Your task to perform on an android device: Open Google Maps and go to "Timeline" Image 0: 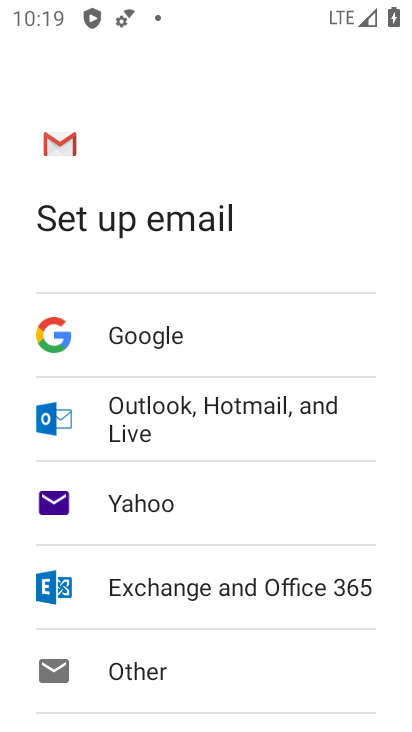
Step 0: press home button
Your task to perform on an android device: Open Google Maps and go to "Timeline" Image 1: 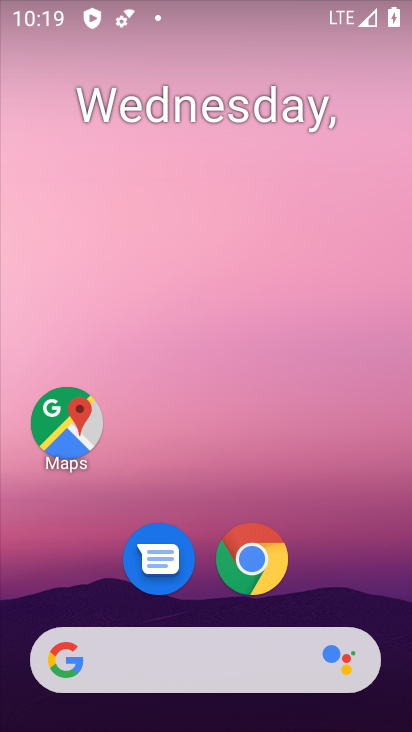
Step 1: drag from (376, 523) to (408, 4)
Your task to perform on an android device: Open Google Maps and go to "Timeline" Image 2: 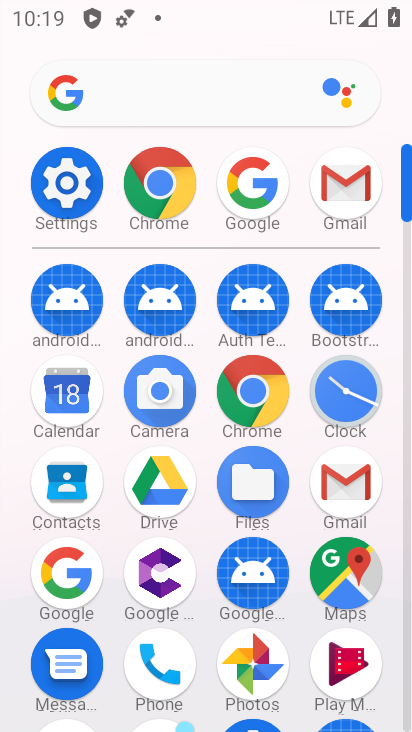
Step 2: click (359, 598)
Your task to perform on an android device: Open Google Maps and go to "Timeline" Image 3: 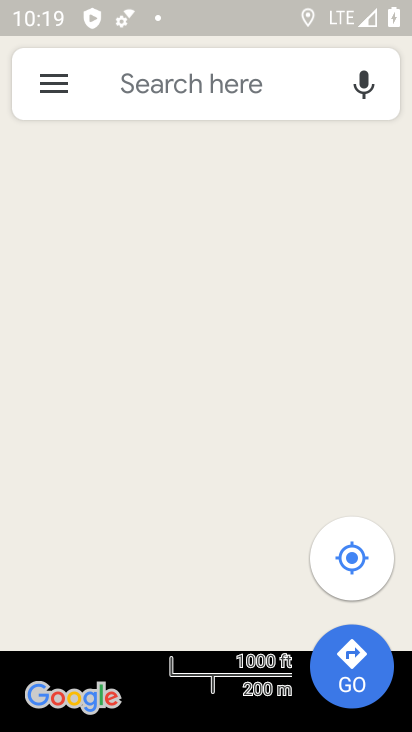
Step 3: click (43, 121)
Your task to perform on an android device: Open Google Maps and go to "Timeline" Image 4: 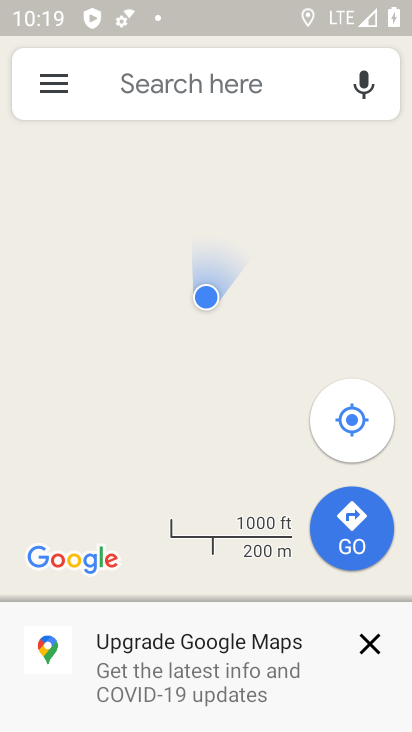
Step 4: click (47, 101)
Your task to perform on an android device: Open Google Maps and go to "Timeline" Image 5: 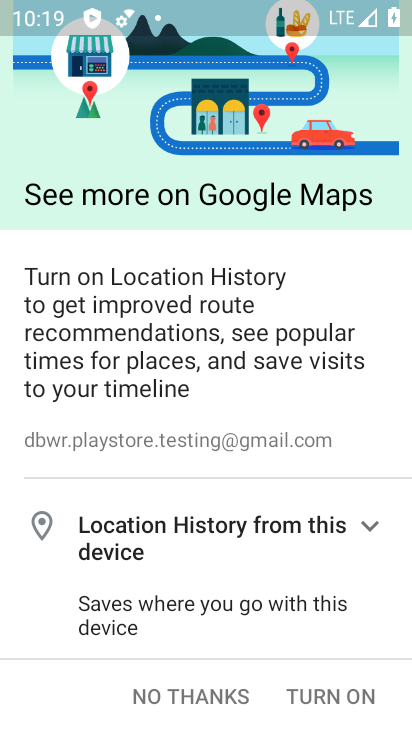
Step 5: click (215, 691)
Your task to perform on an android device: Open Google Maps and go to "Timeline" Image 6: 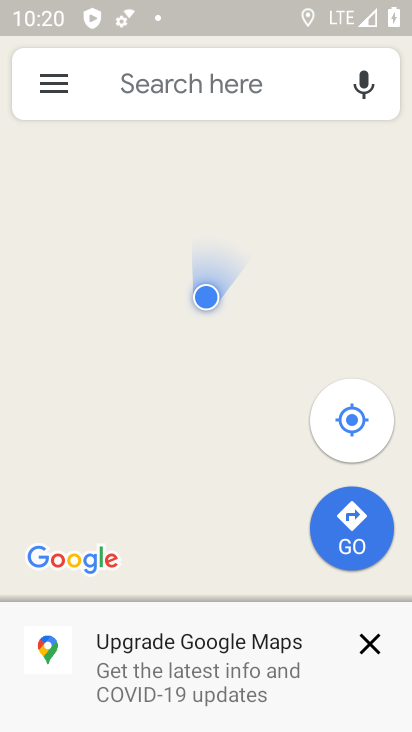
Step 6: click (37, 102)
Your task to perform on an android device: Open Google Maps and go to "Timeline" Image 7: 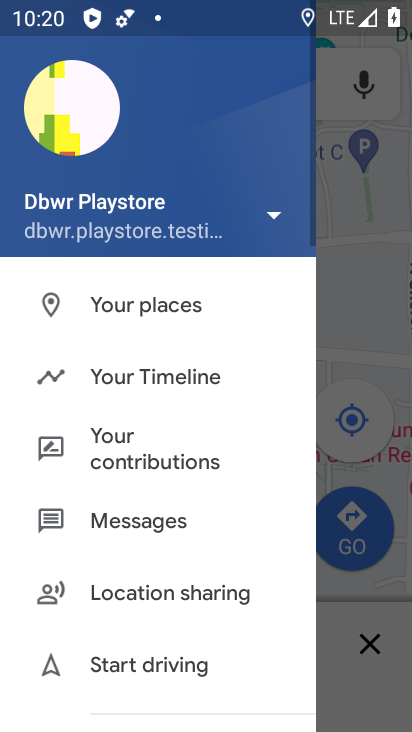
Step 7: click (79, 379)
Your task to perform on an android device: Open Google Maps and go to "Timeline" Image 8: 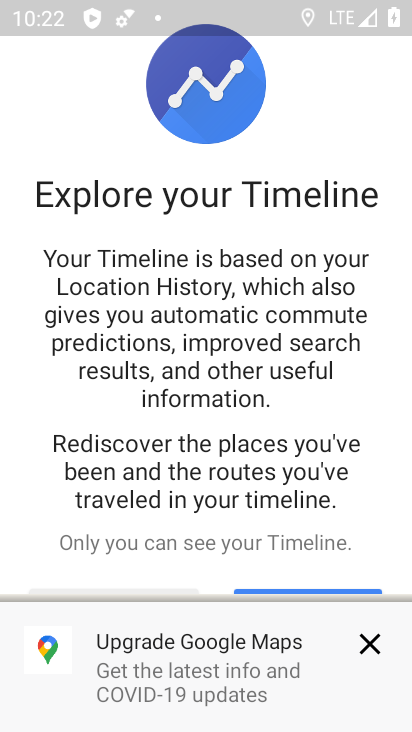
Step 8: task complete